Your task to perform on an android device: Search for the best gaming mouse on Best Buy. Image 0: 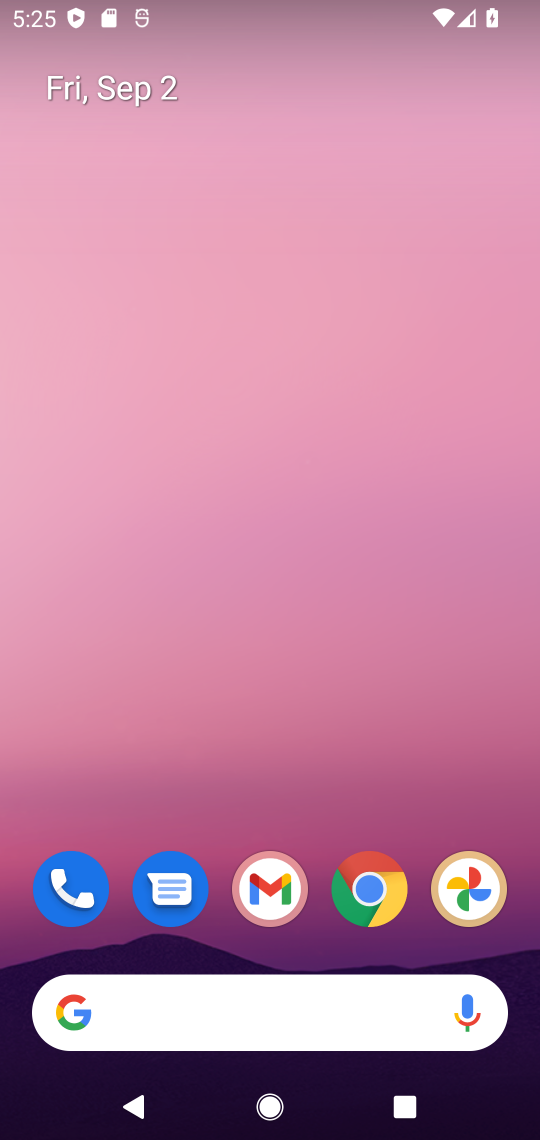
Step 0: click (217, 1017)
Your task to perform on an android device: Search for the best gaming mouse on Best Buy. Image 1: 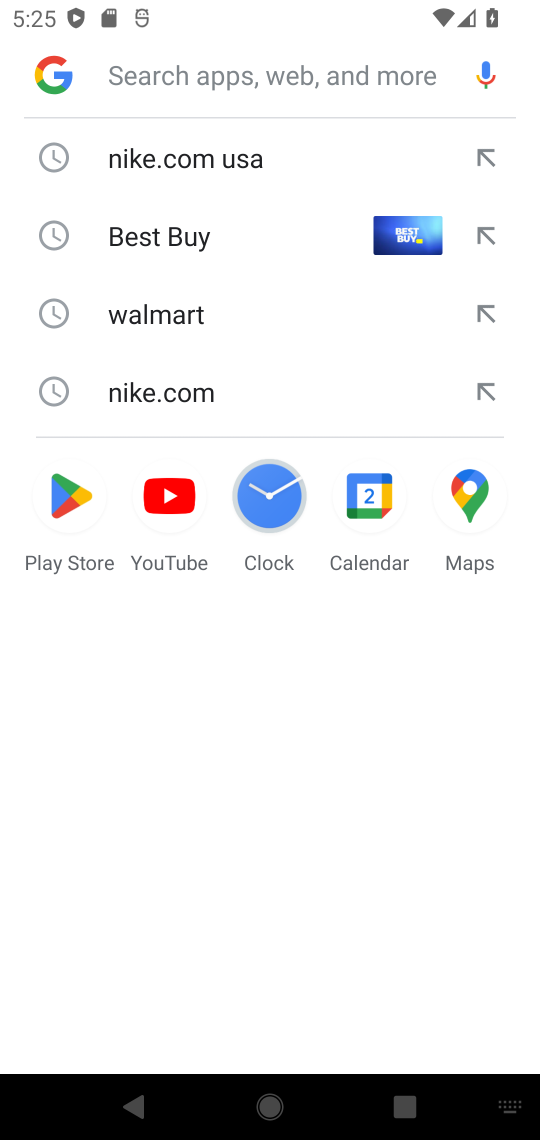
Step 1: click (172, 246)
Your task to perform on an android device: Search for the best gaming mouse on Best Buy. Image 2: 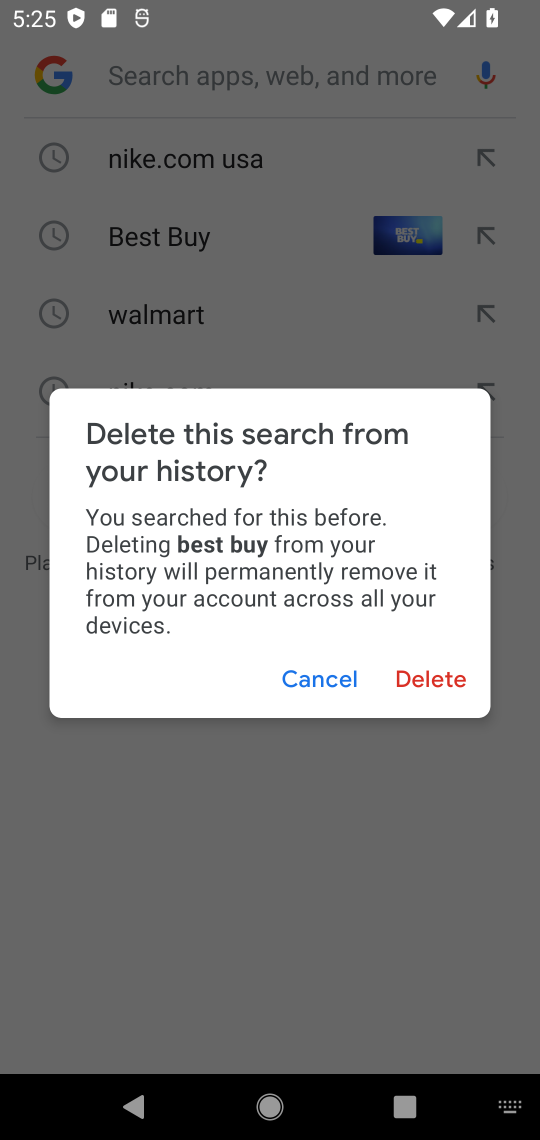
Step 2: click (305, 680)
Your task to perform on an android device: Search for the best gaming mouse on Best Buy. Image 3: 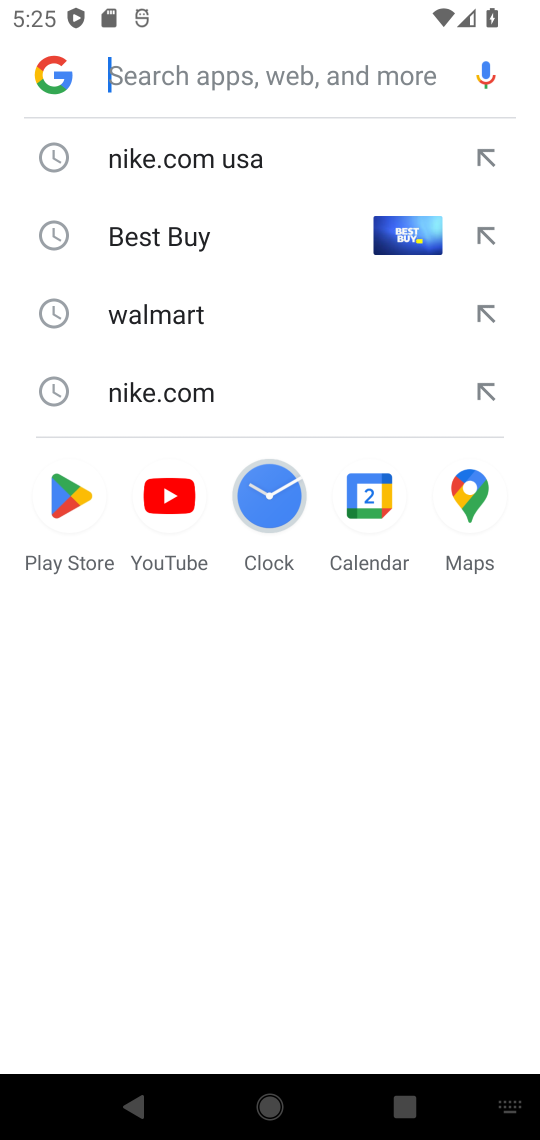
Step 3: click (157, 260)
Your task to perform on an android device: Search for the best gaming mouse on Best Buy. Image 4: 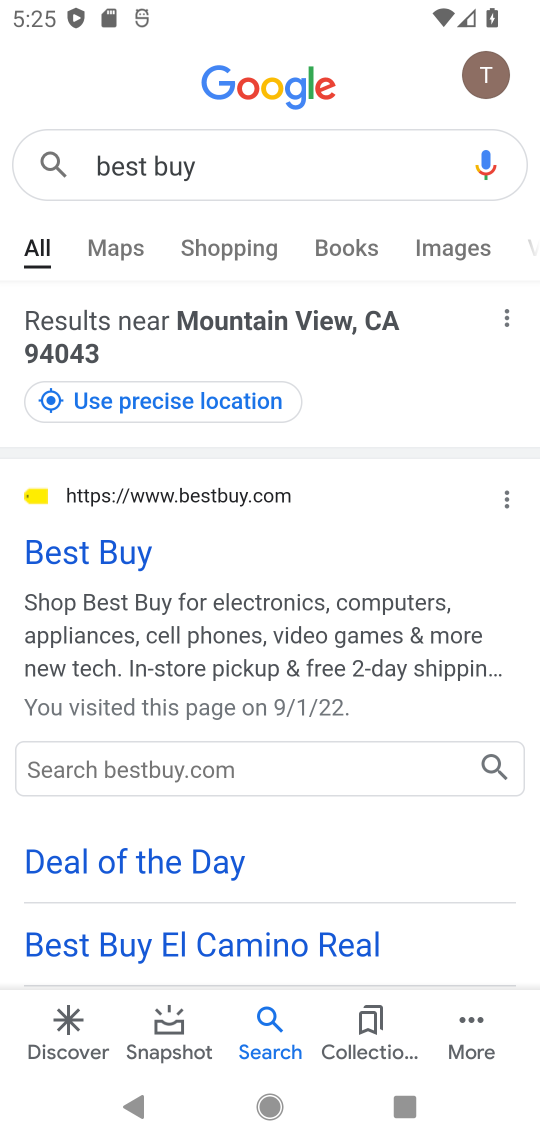
Step 4: click (103, 525)
Your task to perform on an android device: Search for the best gaming mouse on Best Buy. Image 5: 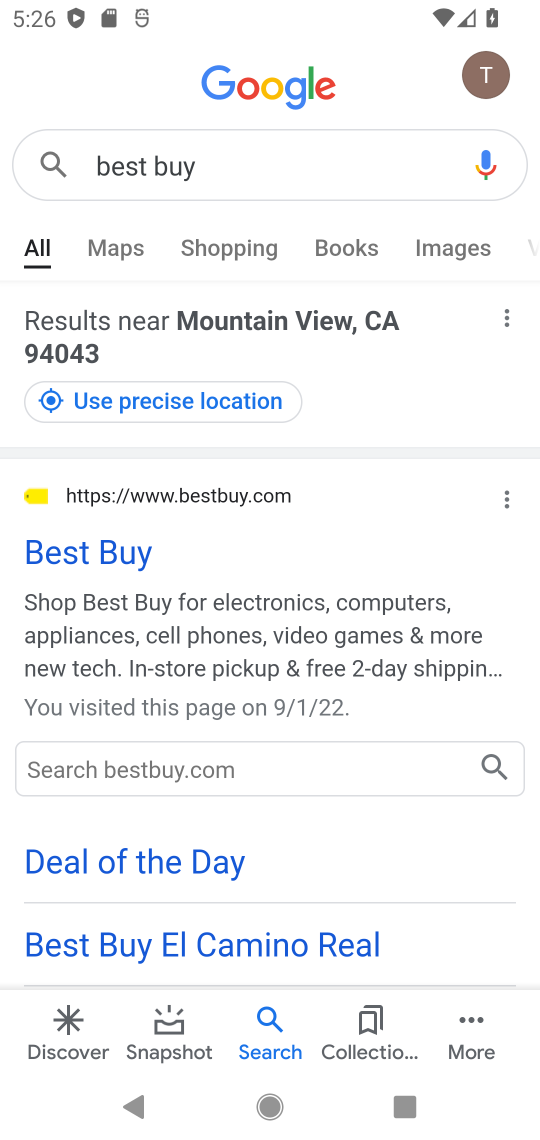
Step 5: click (115, 550)
Your task to perform on an android device: Search for the best gaming mouse on Best Buy. Image 6: 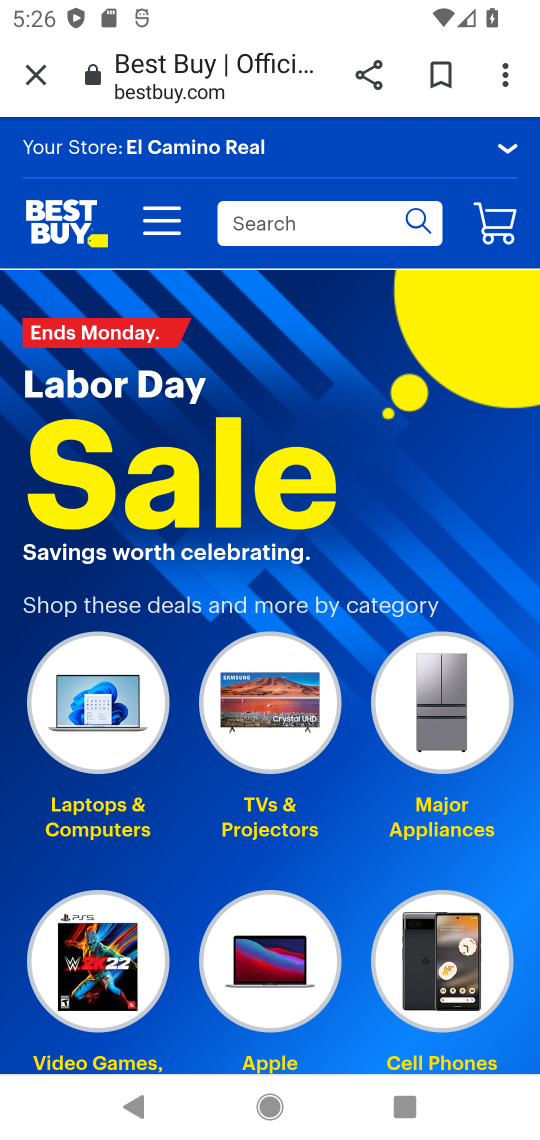
Step 6: click (274, 234)
Your task to perform on an android device: Search for the best gaming mouse on Best Buy. Image 7: 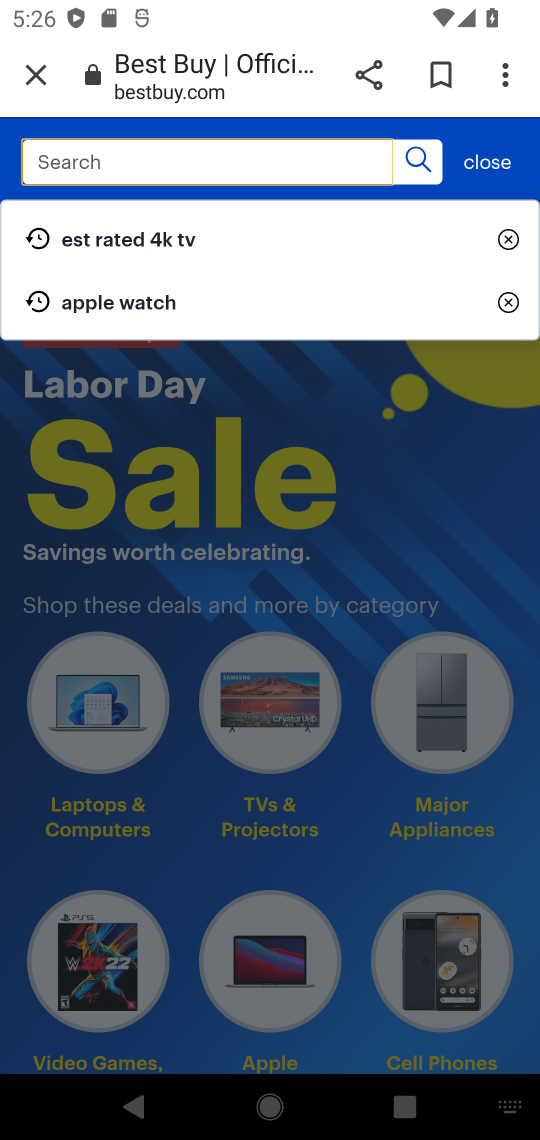
Step 7: type "best gaming mouse"
Your task to perform on an android device: Search for the best gaming mouse on Best Buy. Image 8: 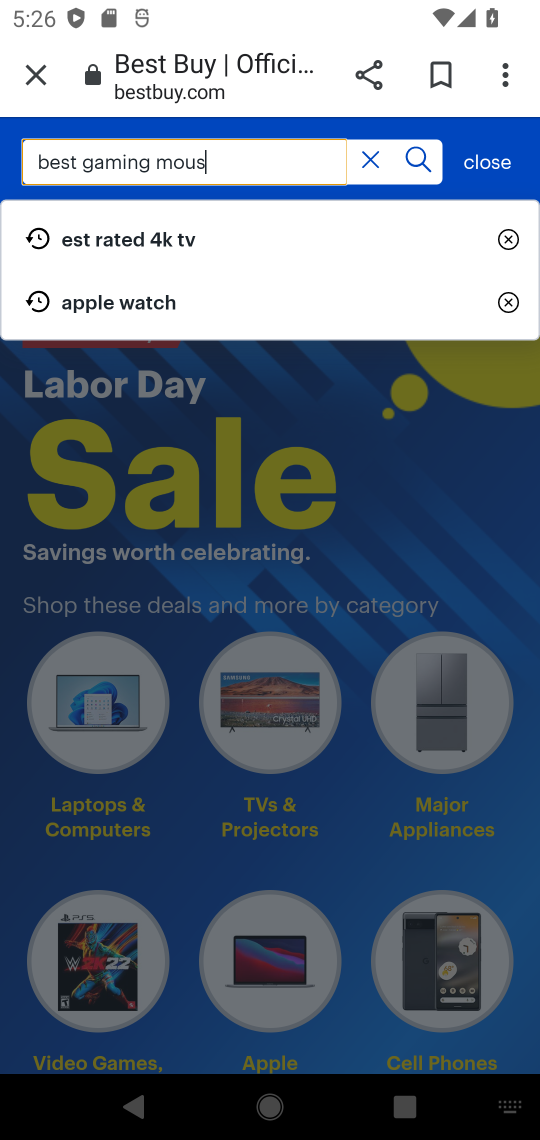
Step 8: type ""
Your task to perform on an android device: Search for the best gaming mouse on Best Buy. Image 9: 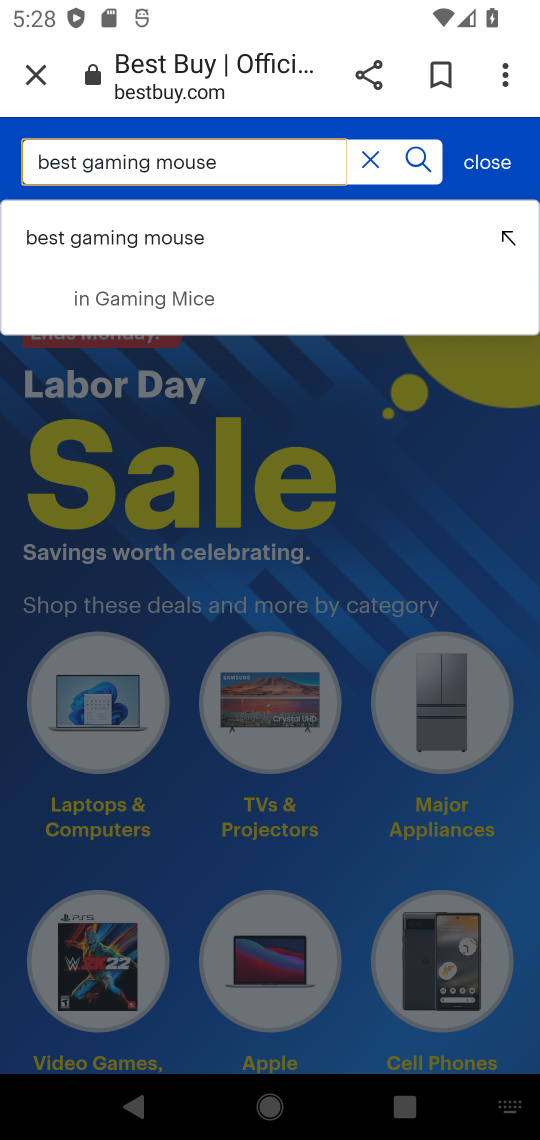
Step 9: click (421, 154)
Your task to perform on an android device: Search for the best gaming mouse on Best Buy. Image 10: 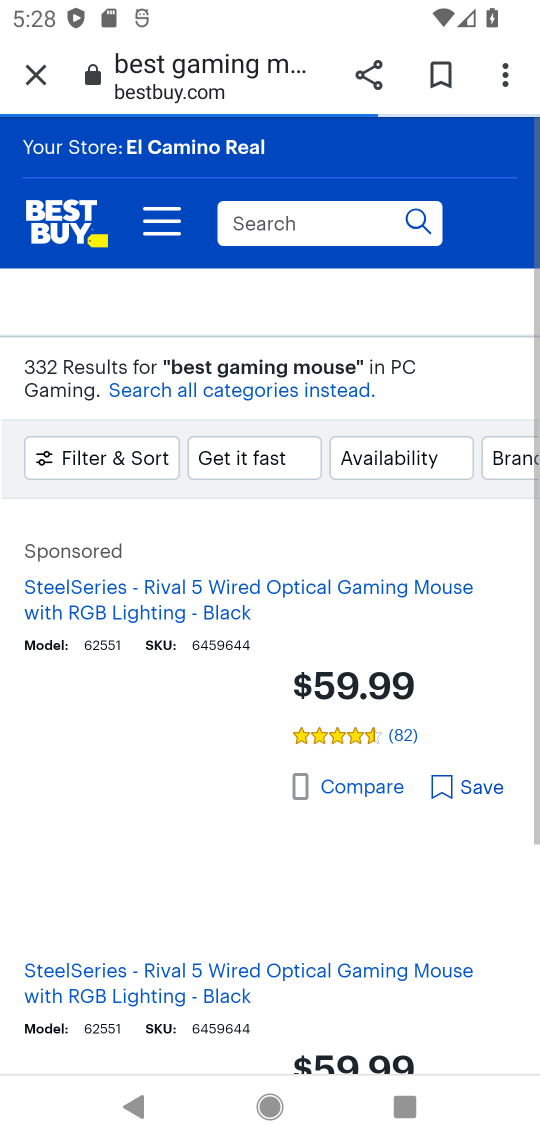
Step 10: click (224, 294)
Your task to perform on an android device: Search for the best gaming mouse on Best Buy. Image 11: 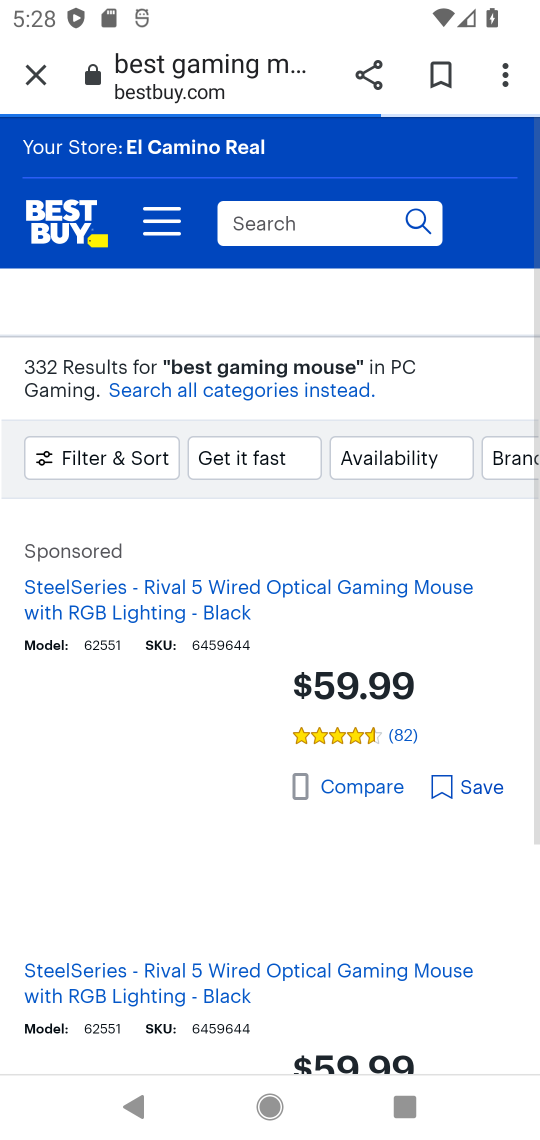
Step 11: task complete